Your task to perform on an android device: Show me productivity apps on the Play Store Image 0: 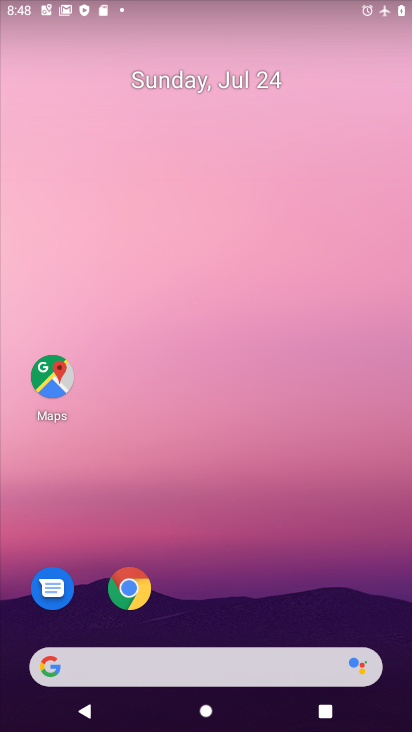
Step 0: press home button
Your task to perform on an android device: Show me productivity apps on the Play Store Image 1: 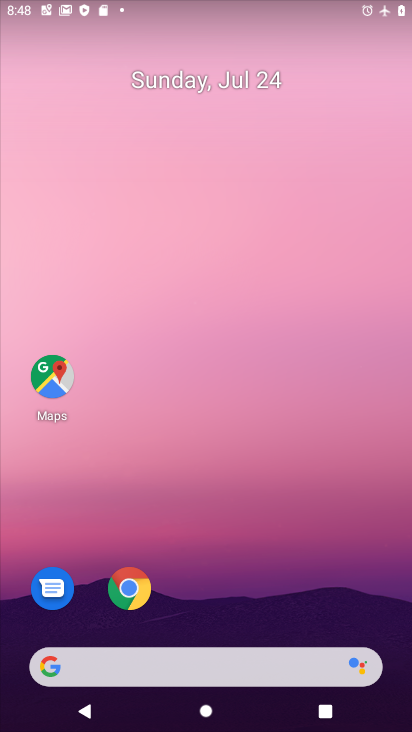
Step 1: drag from (229, 614) to (257, 85)
Your task to perform on an android device: Show me productivity apps on the Play Store Image 2: 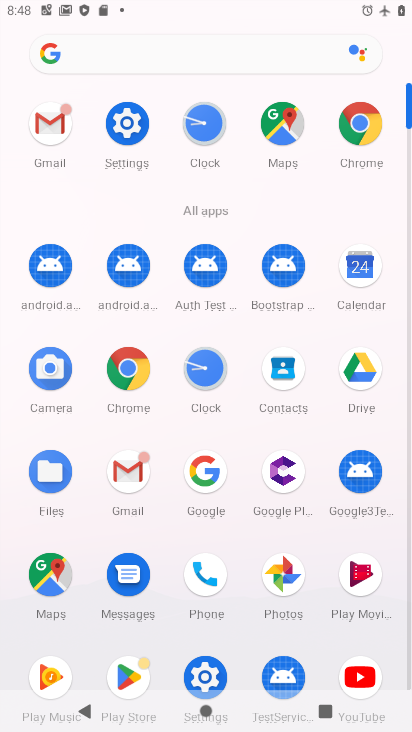
Step 2: click (127, 658)
Your task to perform on an android device: Show me productivity apps on the Play Store Image 3: 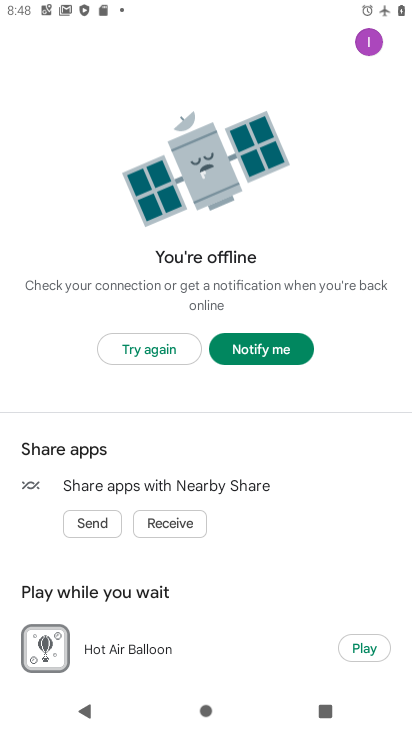
Step 3: task complete